Your task to perform on an android device: What's the weather? Image 0: 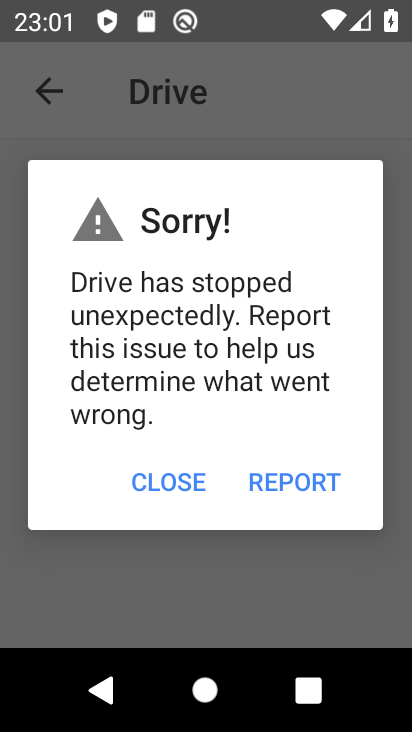
Step 0: press home button
Your task to perform on an android device: What's the weather? Image 1: 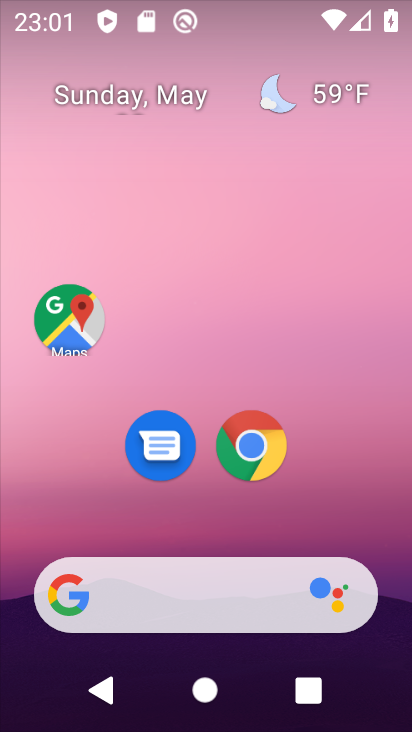
Step 1: click (257, 438)
Your task to perform on an android device: What's the weather? Image 2: 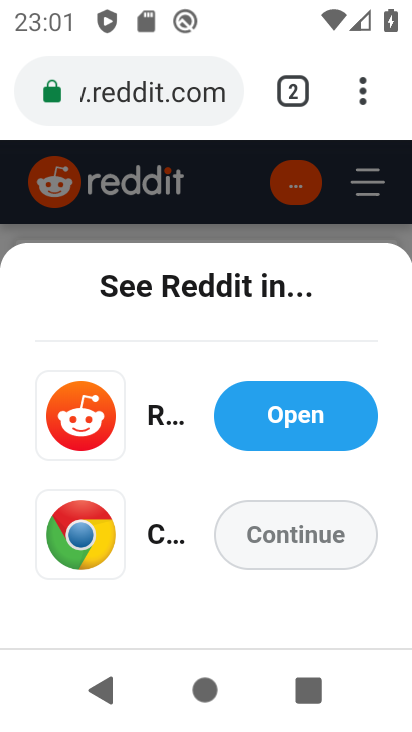
Step 2: click (164, 83)
Your task to perform on an android device: What's the weather? Image 3: 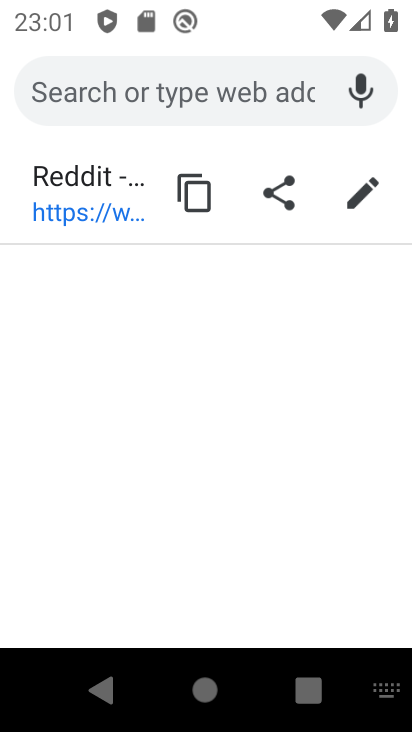
Step 3: type "What's the weather?"
Your task to perform on an android device: What's the weather? Image 4: 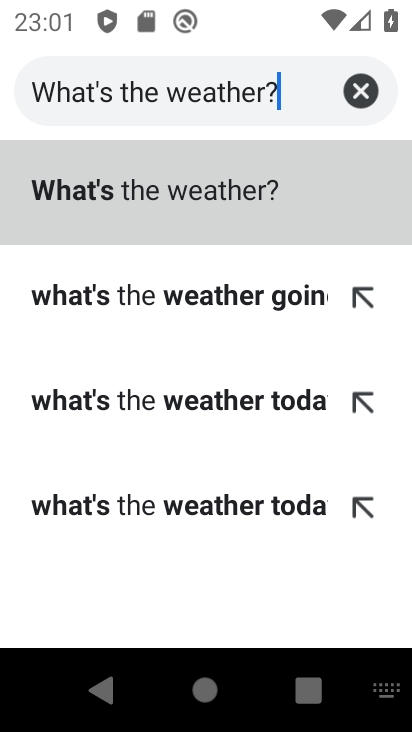
Step 4: click (149, 186)
Your task to perform on an android device: What's the weather? Image 5: 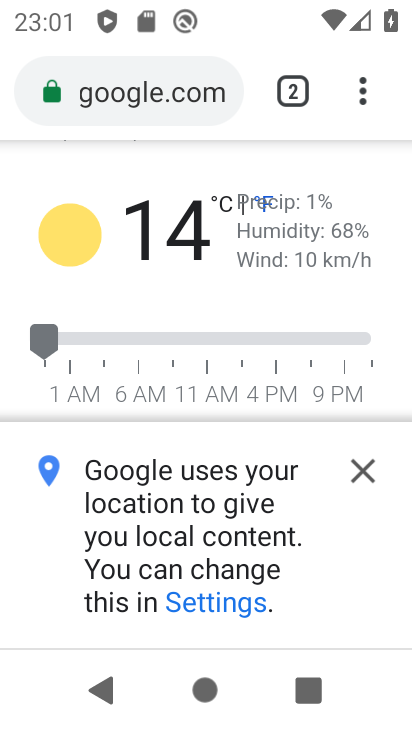
Step 5: click (359, 465)
Your task to perform on an android device: What's the weather? Image 6: 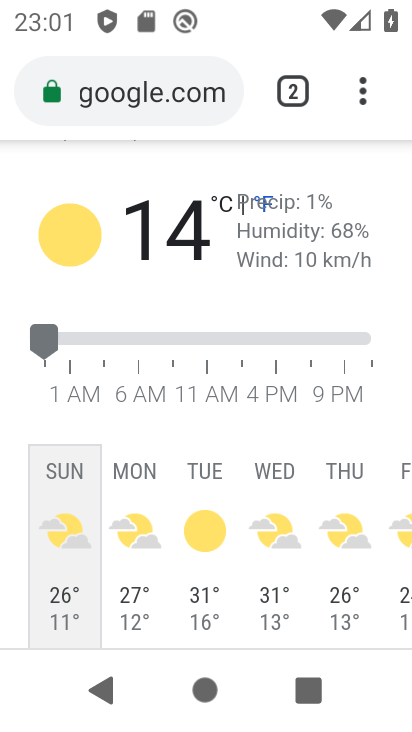
Step 6: task complete